Your task to perform on an android device: turn notification dots on Image 0: 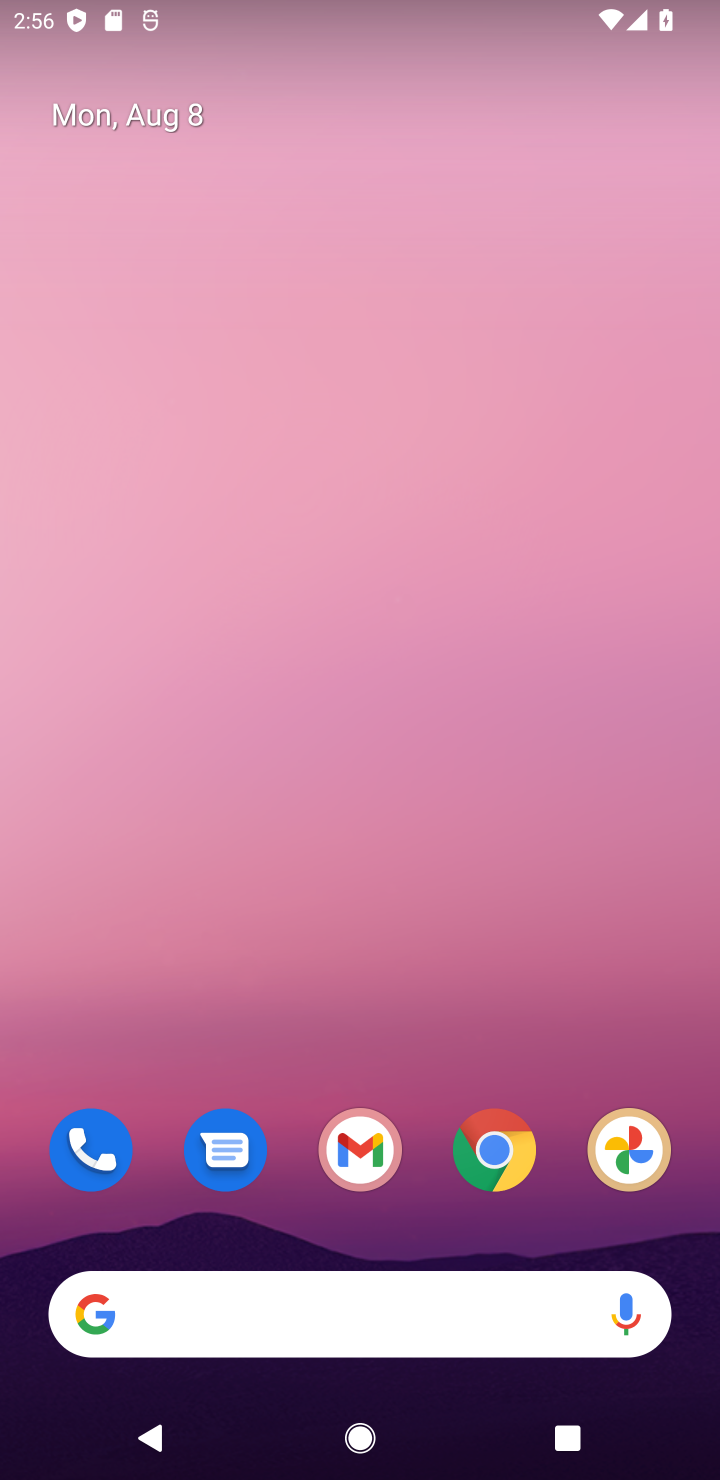
Step 0: click (517, 1150)
Your task to perform on an android device: turn notification dots on Image 1: 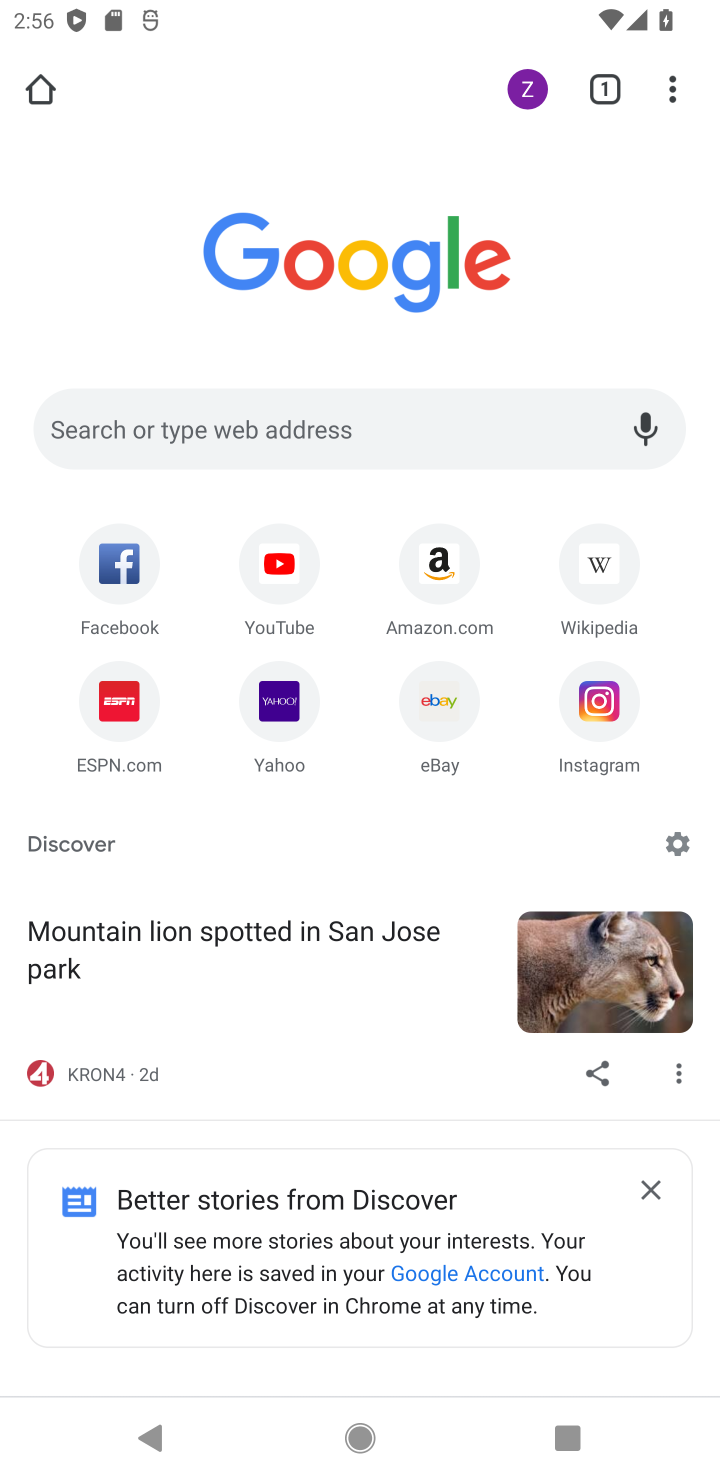
Step 1: press home button
Your task to perform on an android device: turn notification dots on Image 2: 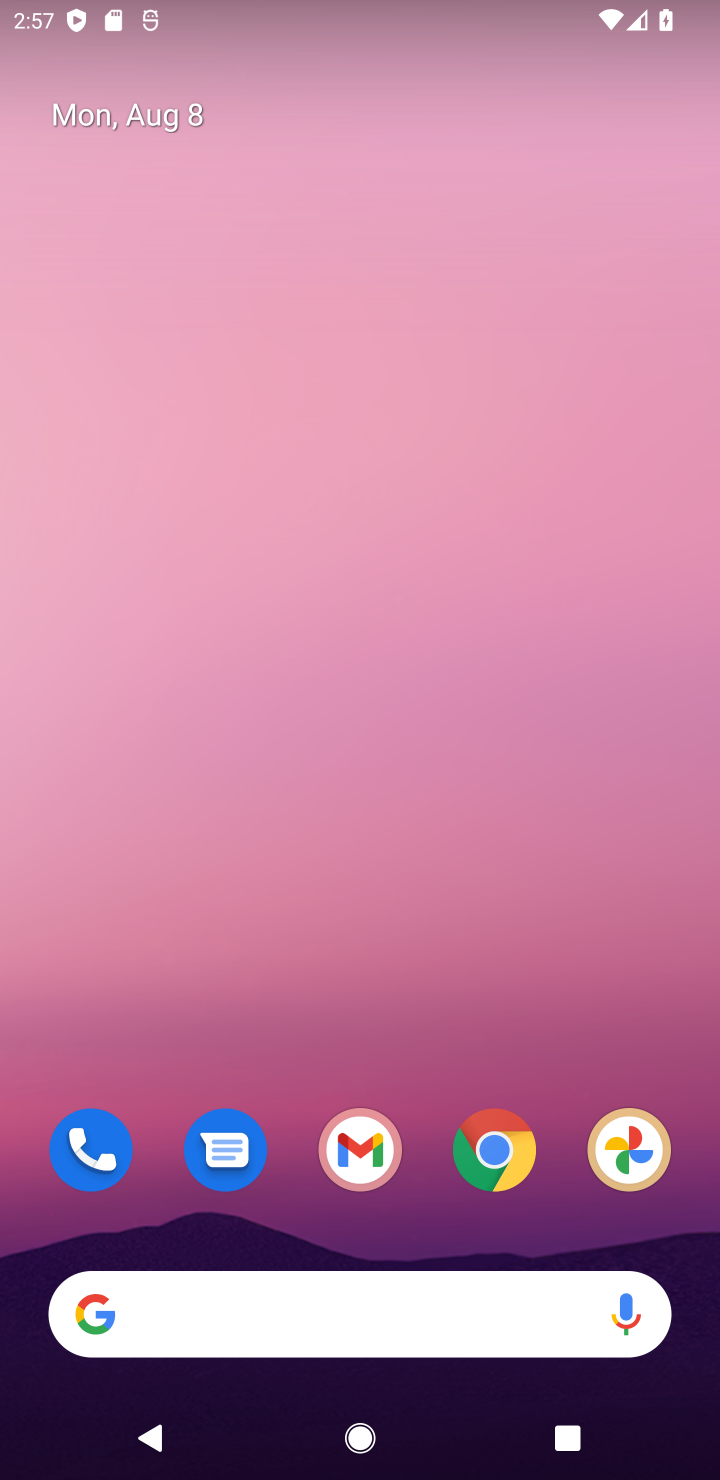
Step 2: drag from (146, 1180) to (166, 549)
Your task to perform on an android device: turn notification dots on Image 3: 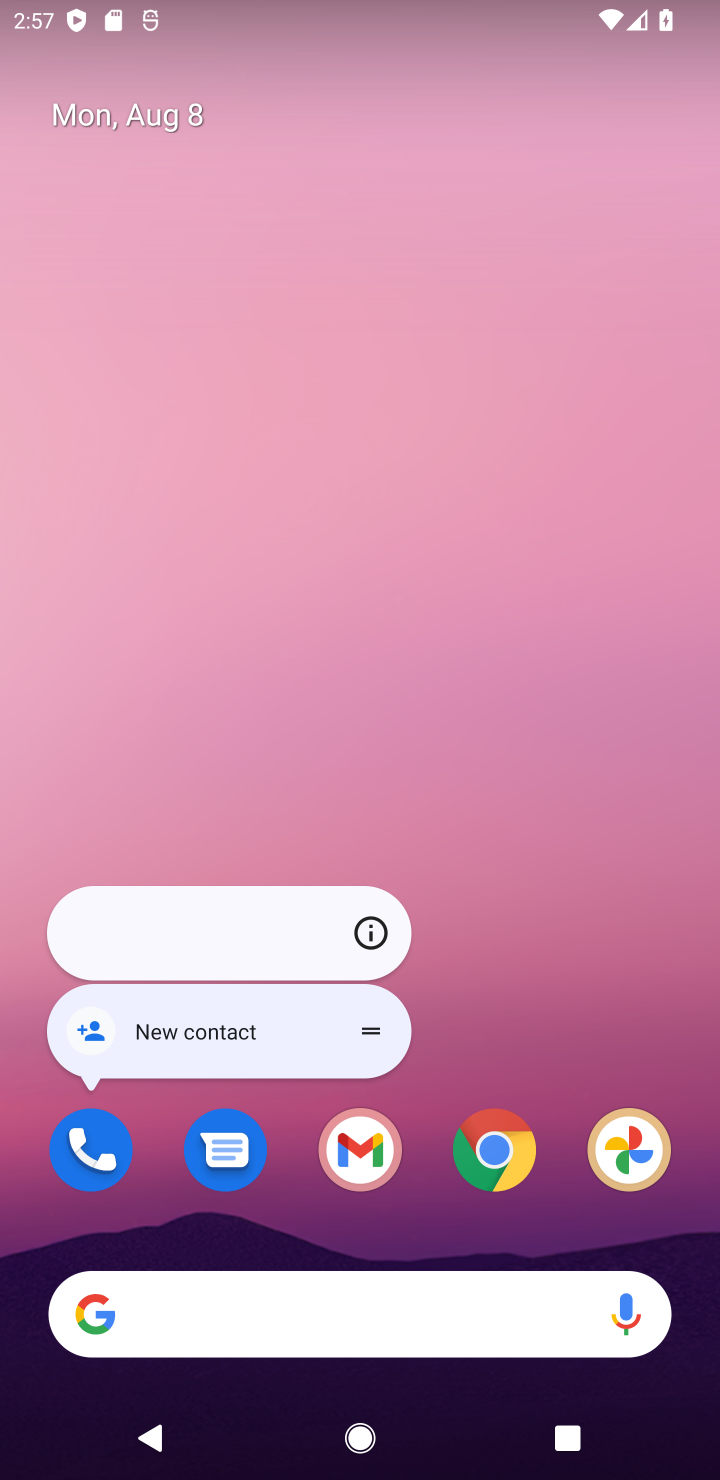
Step 3: drag from (58, 1408) to (412, 710)
Your task to perform on an android device: turn notification dots on Image 4: 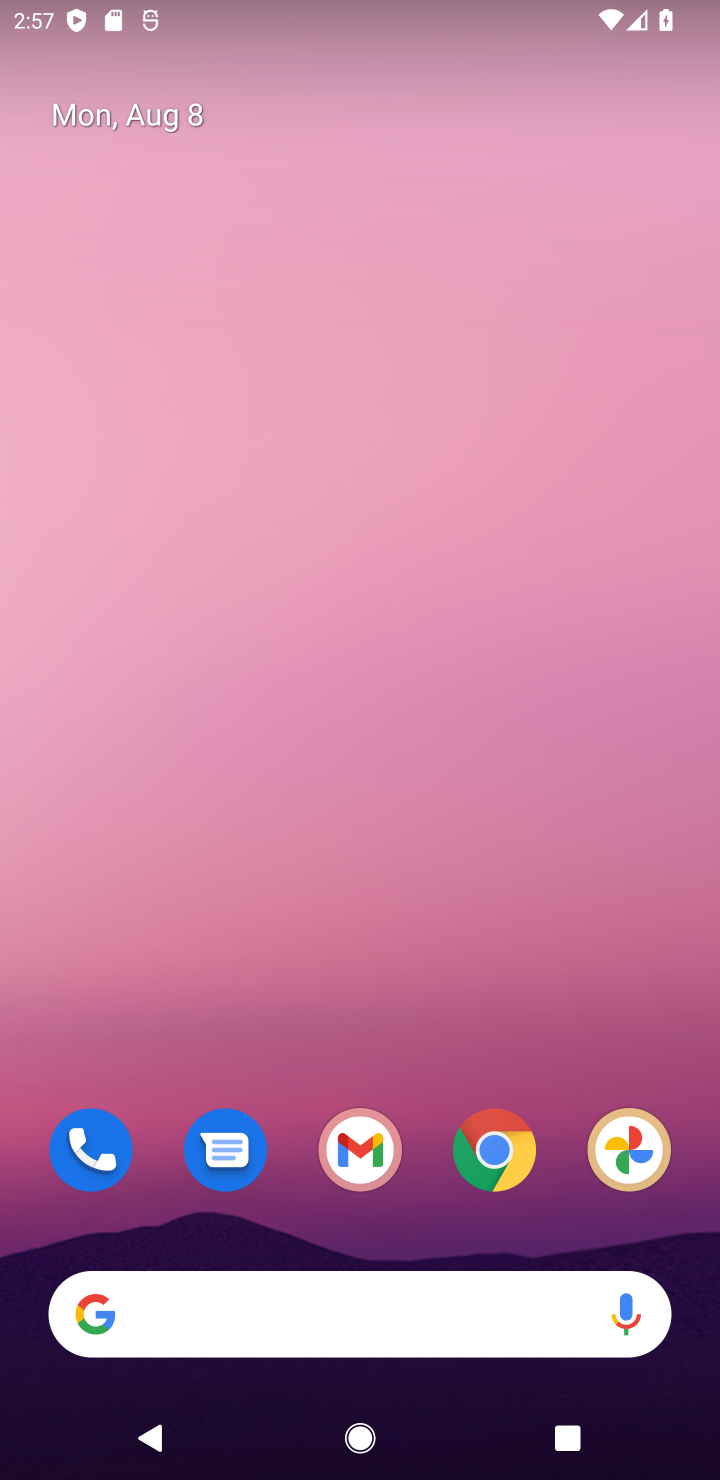
Step 4: drag from (38, 1444) to (367, 501)
Your task to perform on an android device: turn notification dots on Image 5: 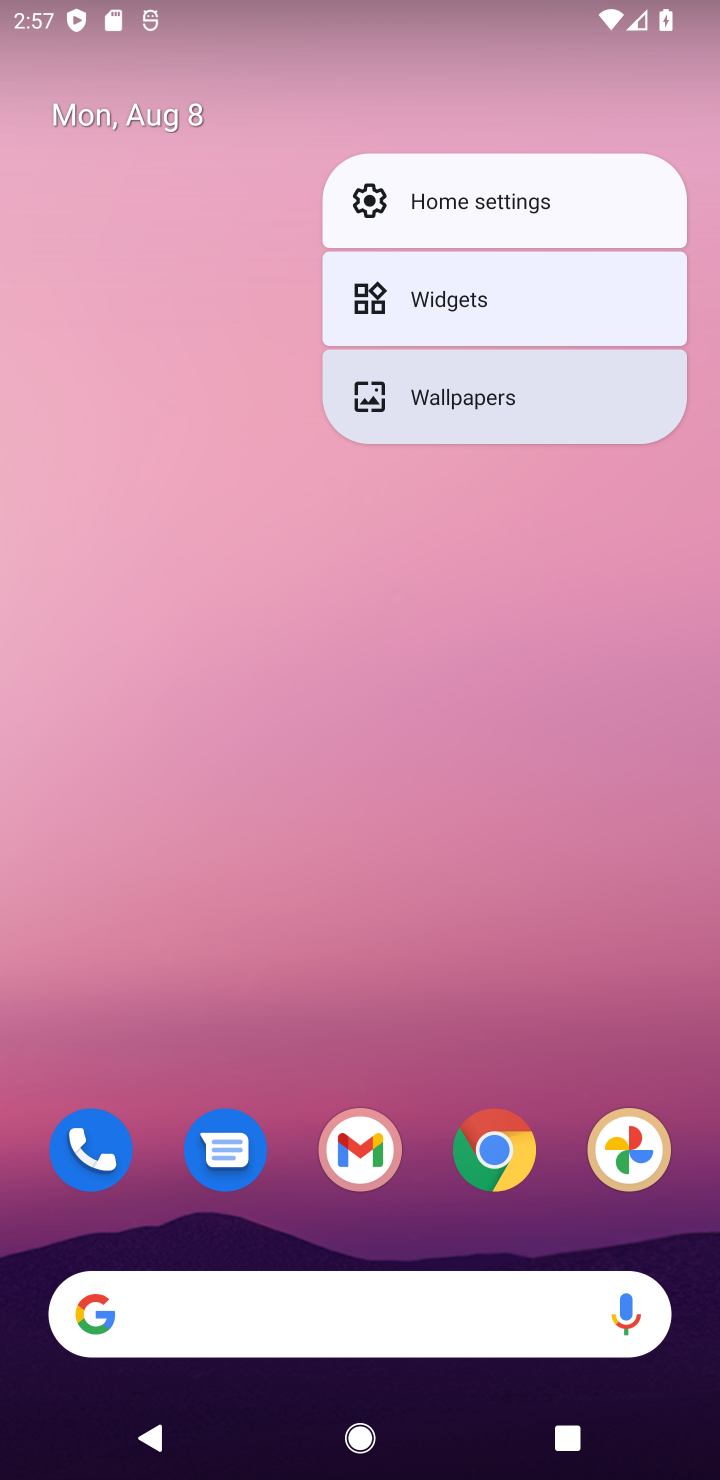
Step 5: drag from (110, 1419) to (518, 606)
Your task to perform on an android device: turn notification dots on Image 6: 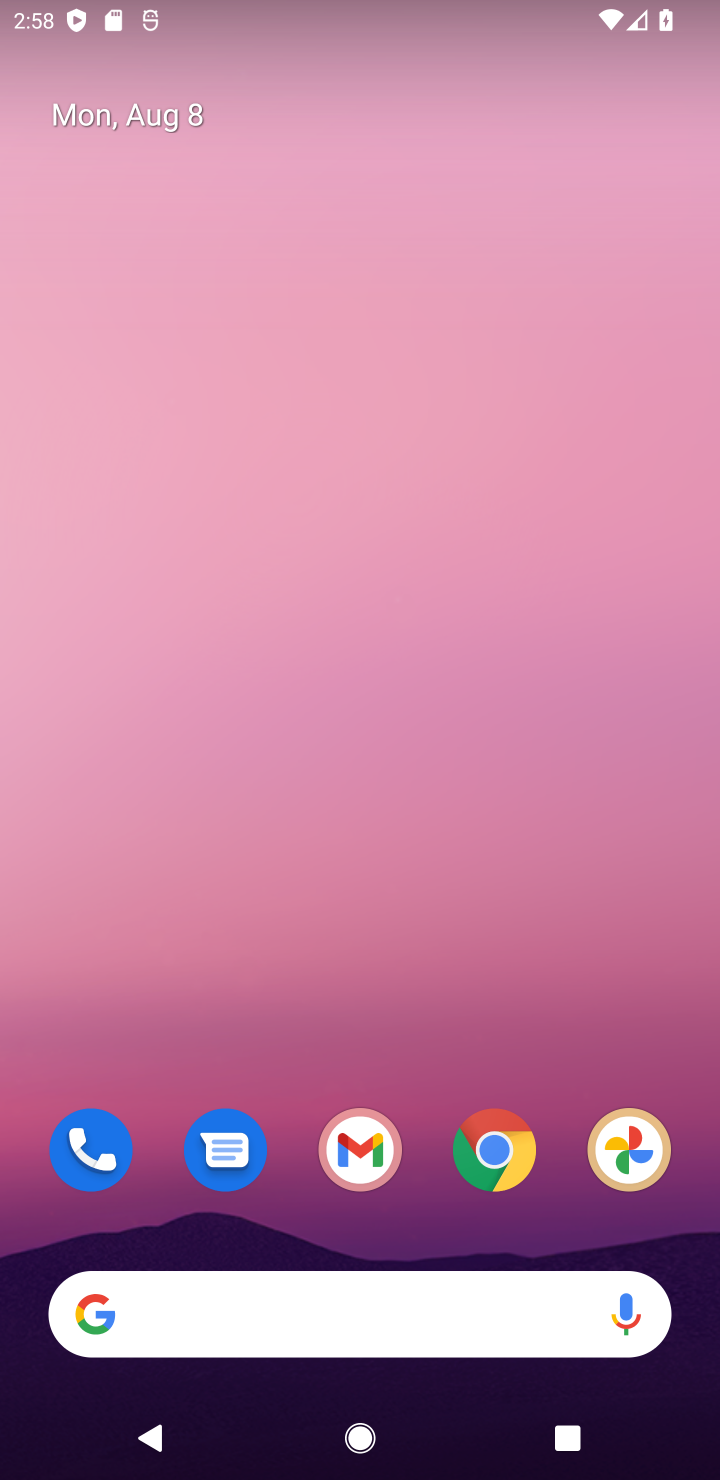
Step 6: drag from (19, 1420) to (603, 9)
Your task to perform on an android device: turn notification dots on Image 7: 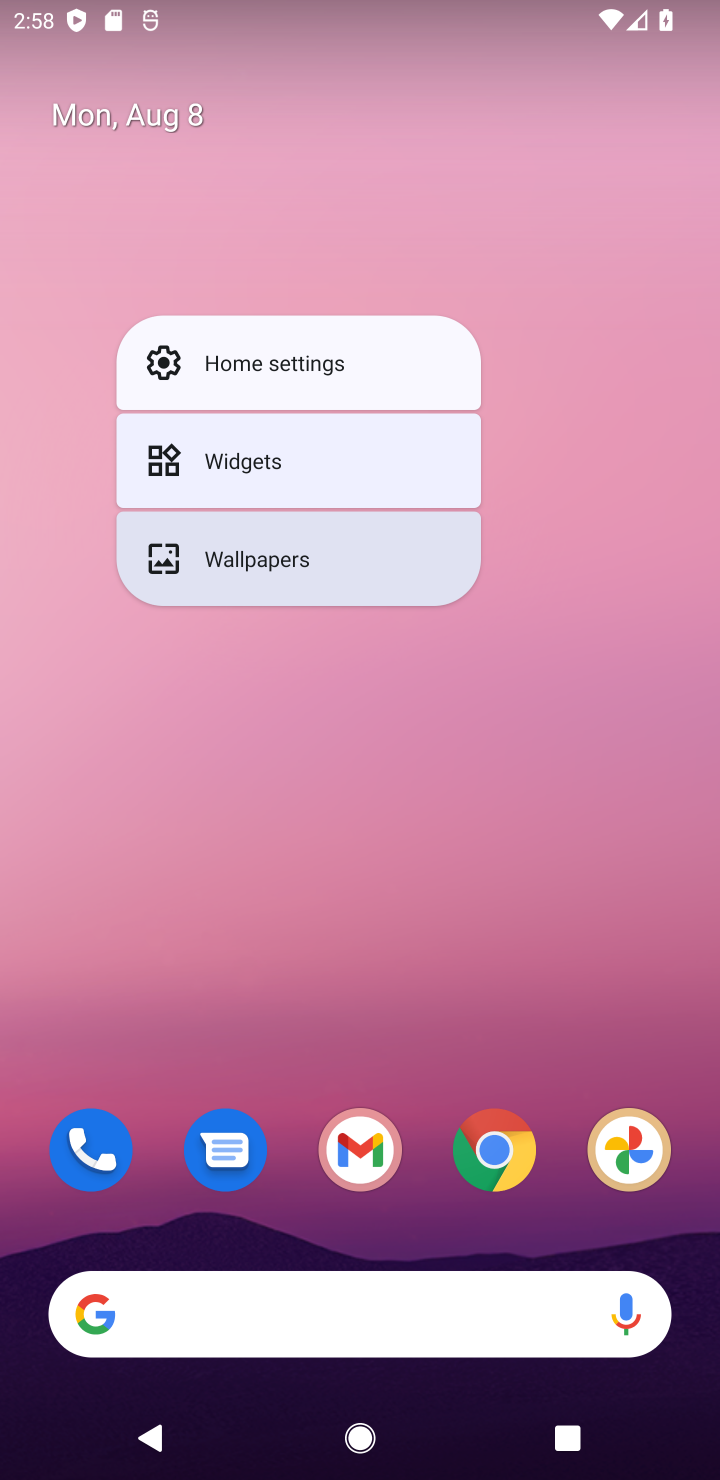
Step 7: click (80, 1421)
Your task to perform on an android device: turn notification dots on Image 8: 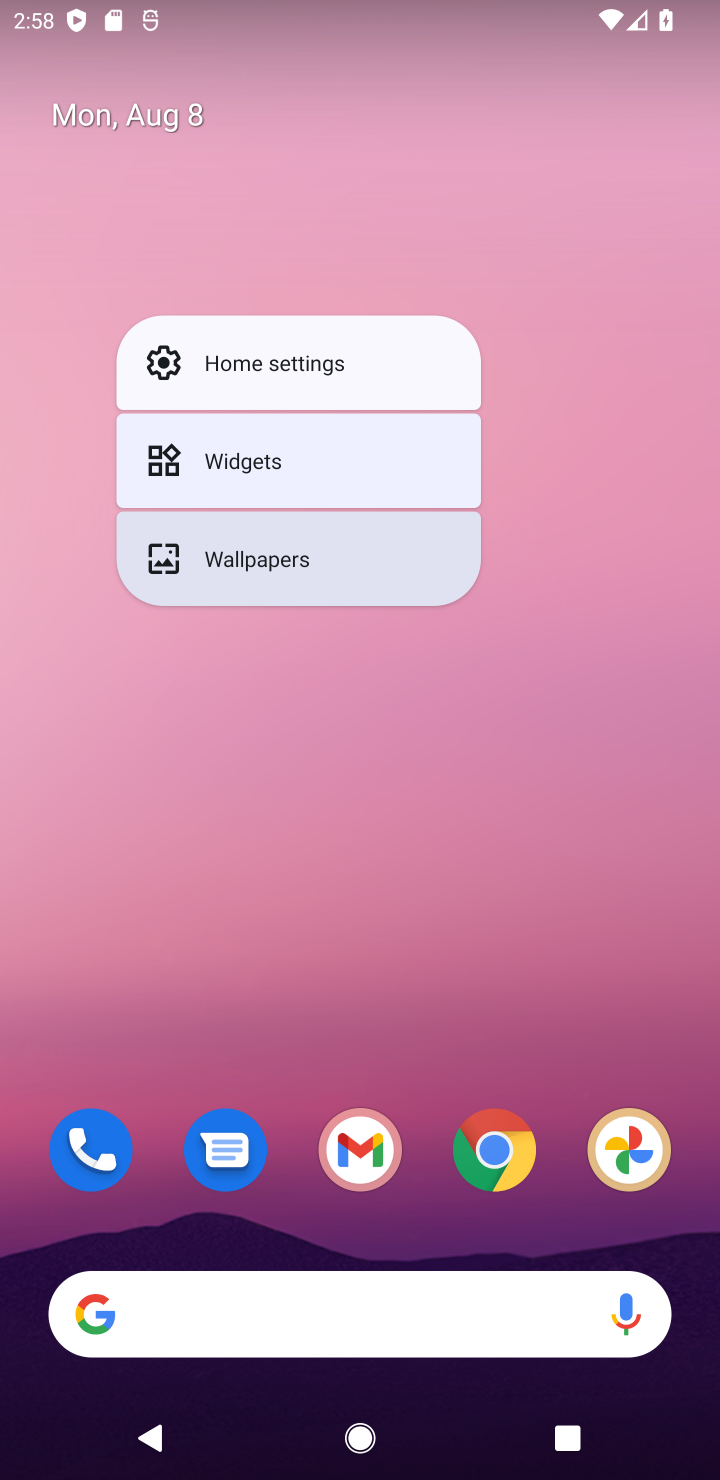
Step 8: drag from (80, 1421) to (293, 845)
Your task to perform on an android device: turn notification dots on Image 9: 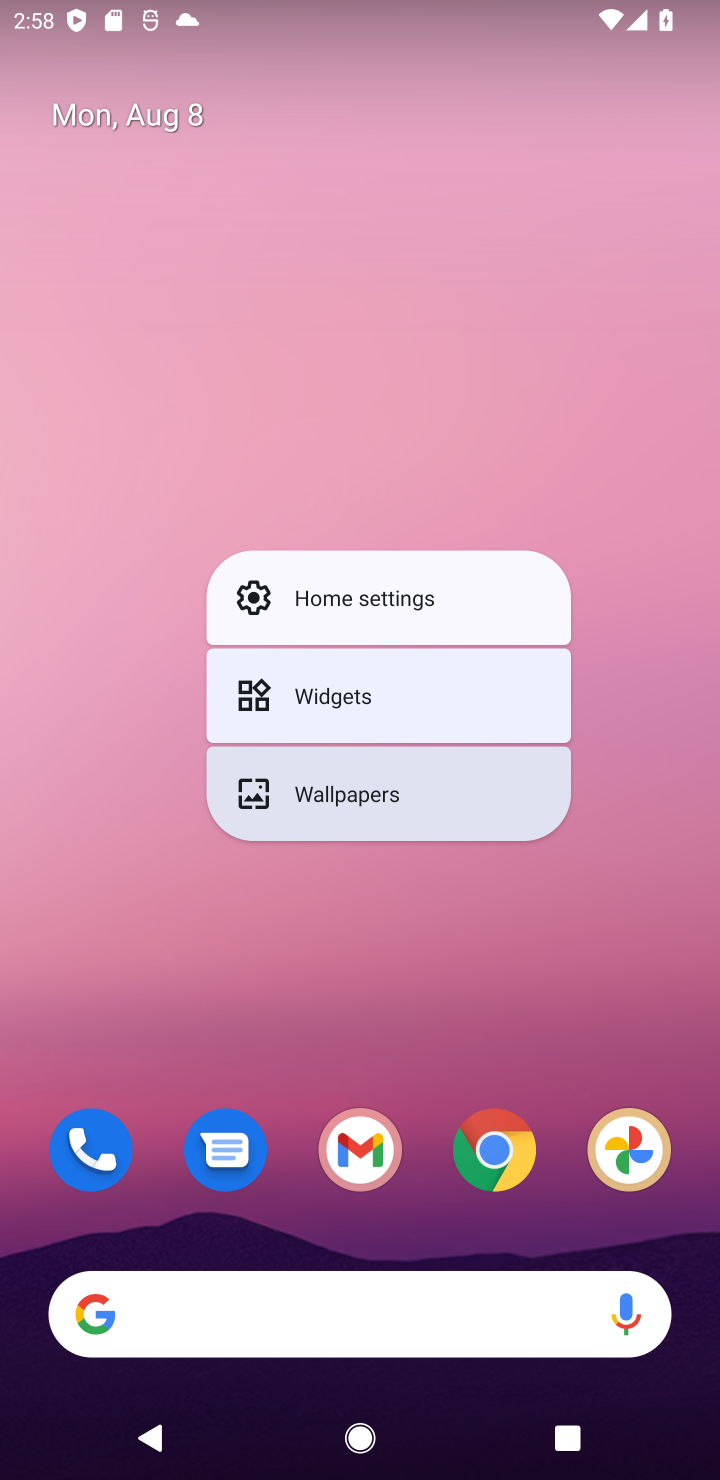
Step 9: drag from (0, 1450) to (314, 885)
Your task to perform on an android device: turn notification dots on Image 10: 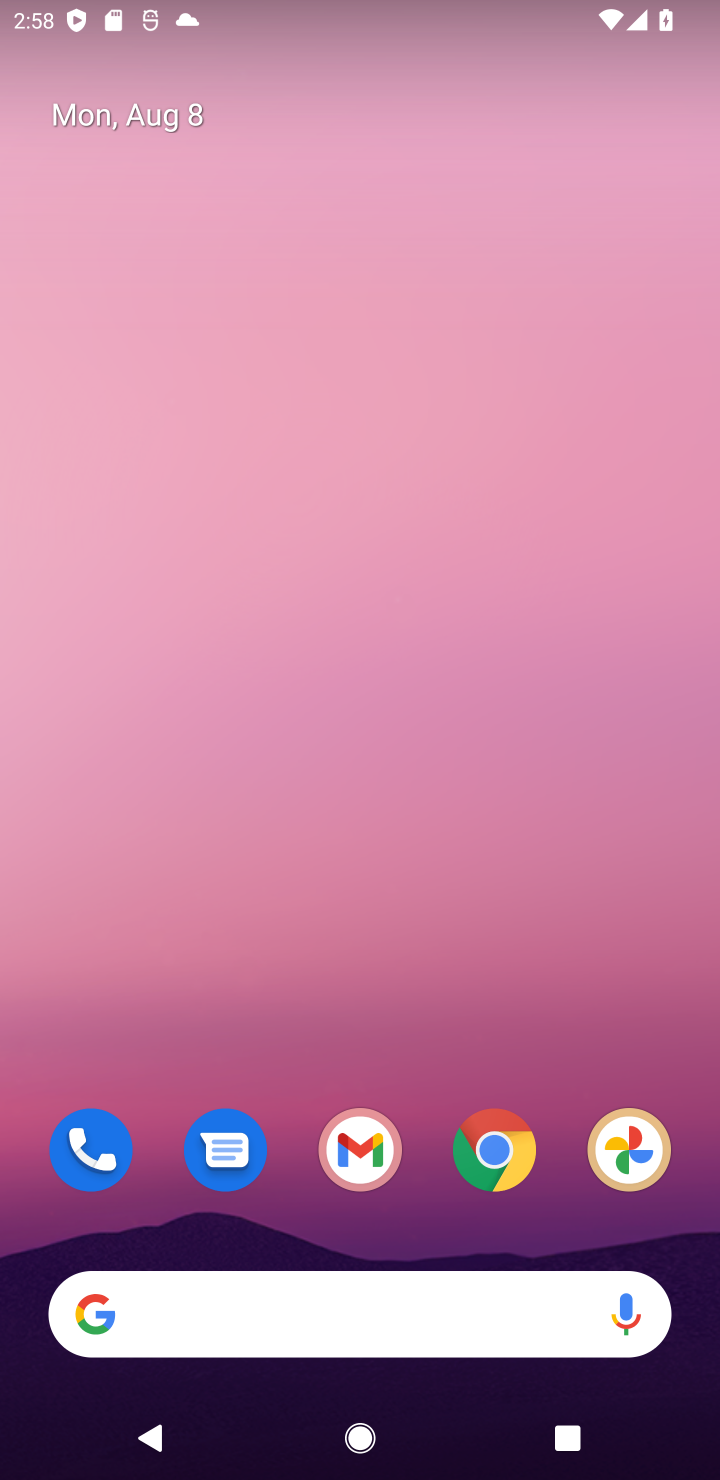
Step 10: drag from (100, 1397) to (447, 646)
Your task to perform on an android device: turn notification dots on Image 11: 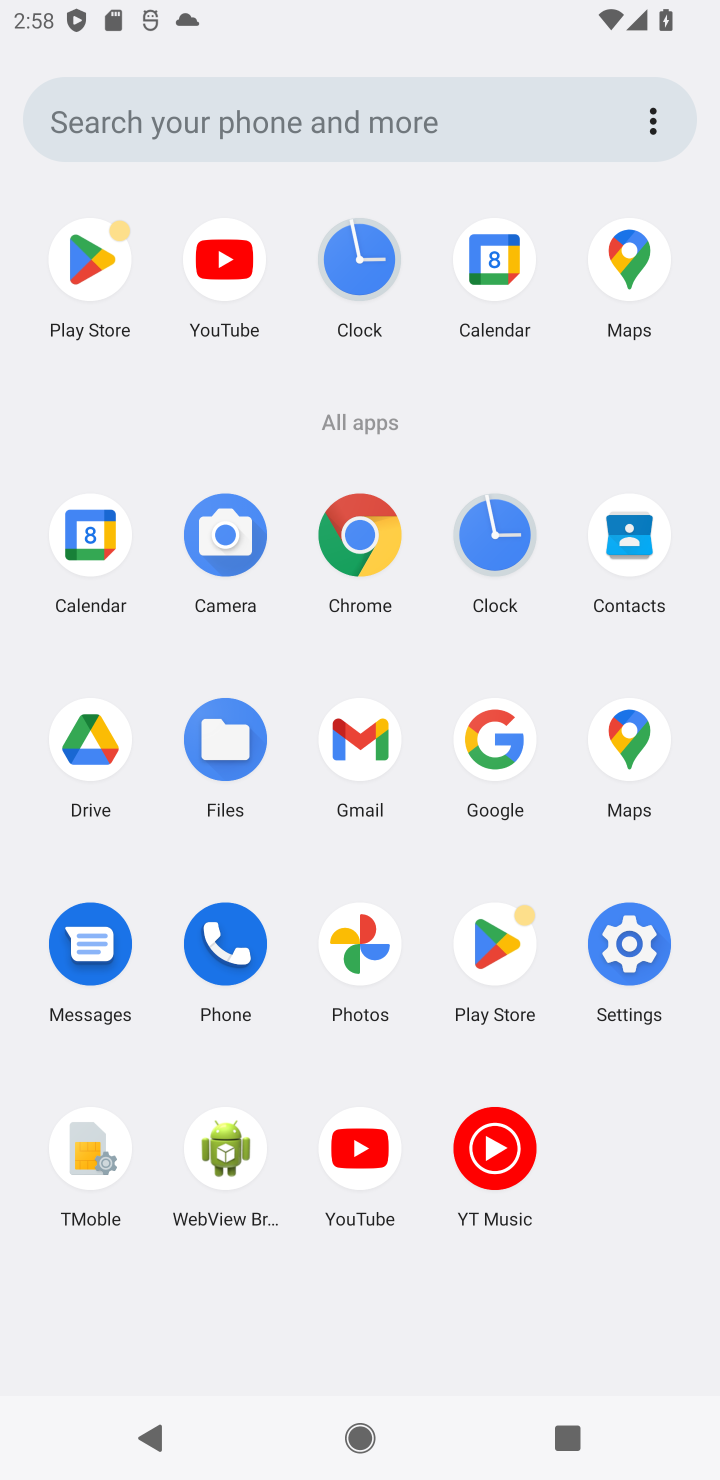
Step 11: click (649, 969)
Your task to perform on an android device: turn notification dots on Image 12: 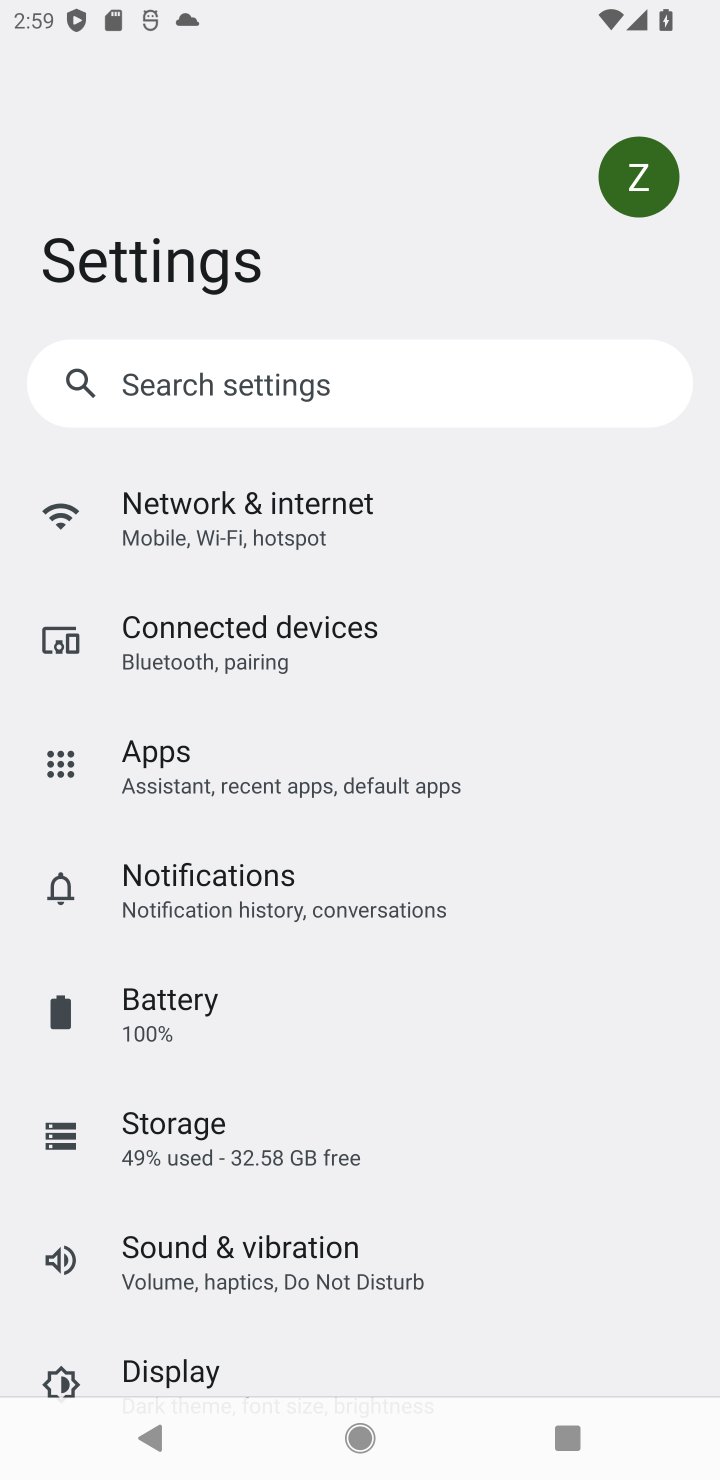
Step 12: drag from (515, 1309) to (657, 819)
Your task to perform on an android device: turn notification dots on Image 13: 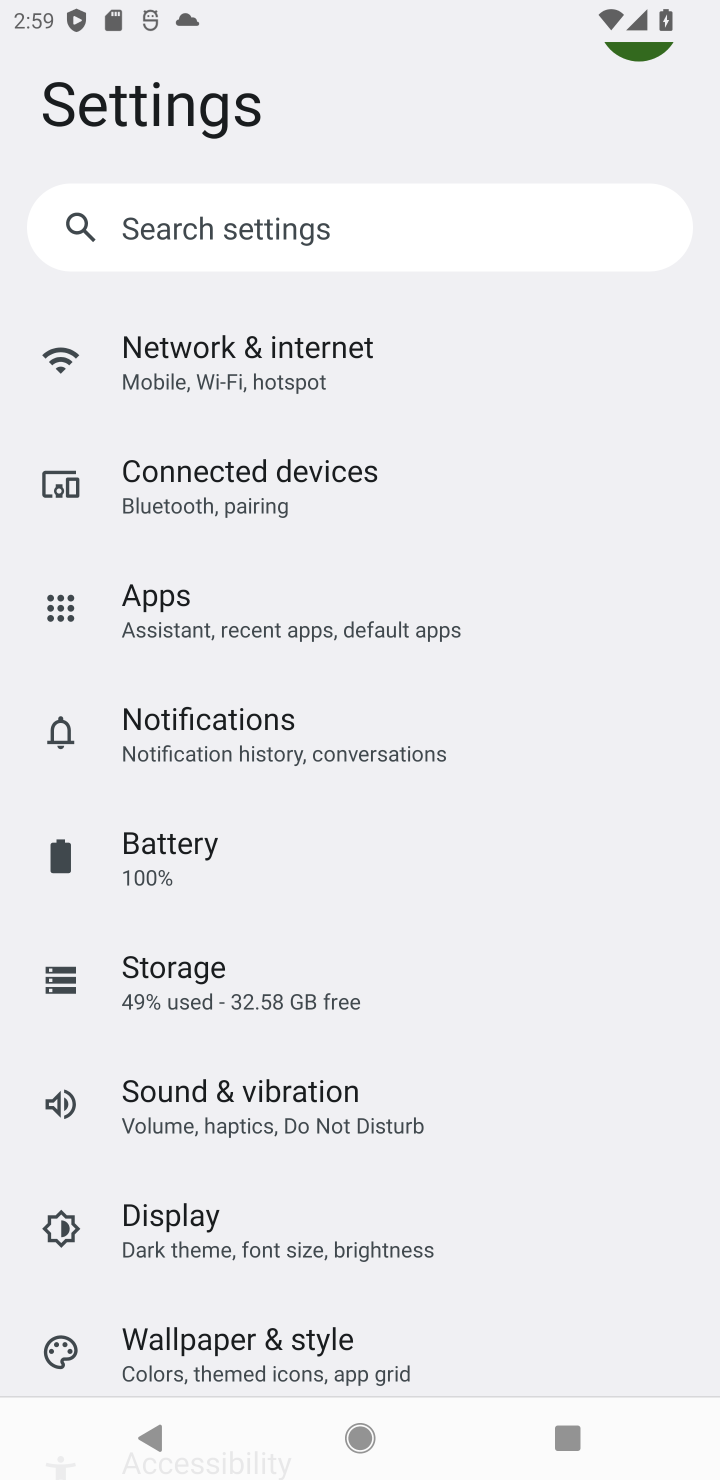
Step 13: drag from (484, 1264) to (570, 757)
Your task to perform on an android device: turn notification dots on Image 14: 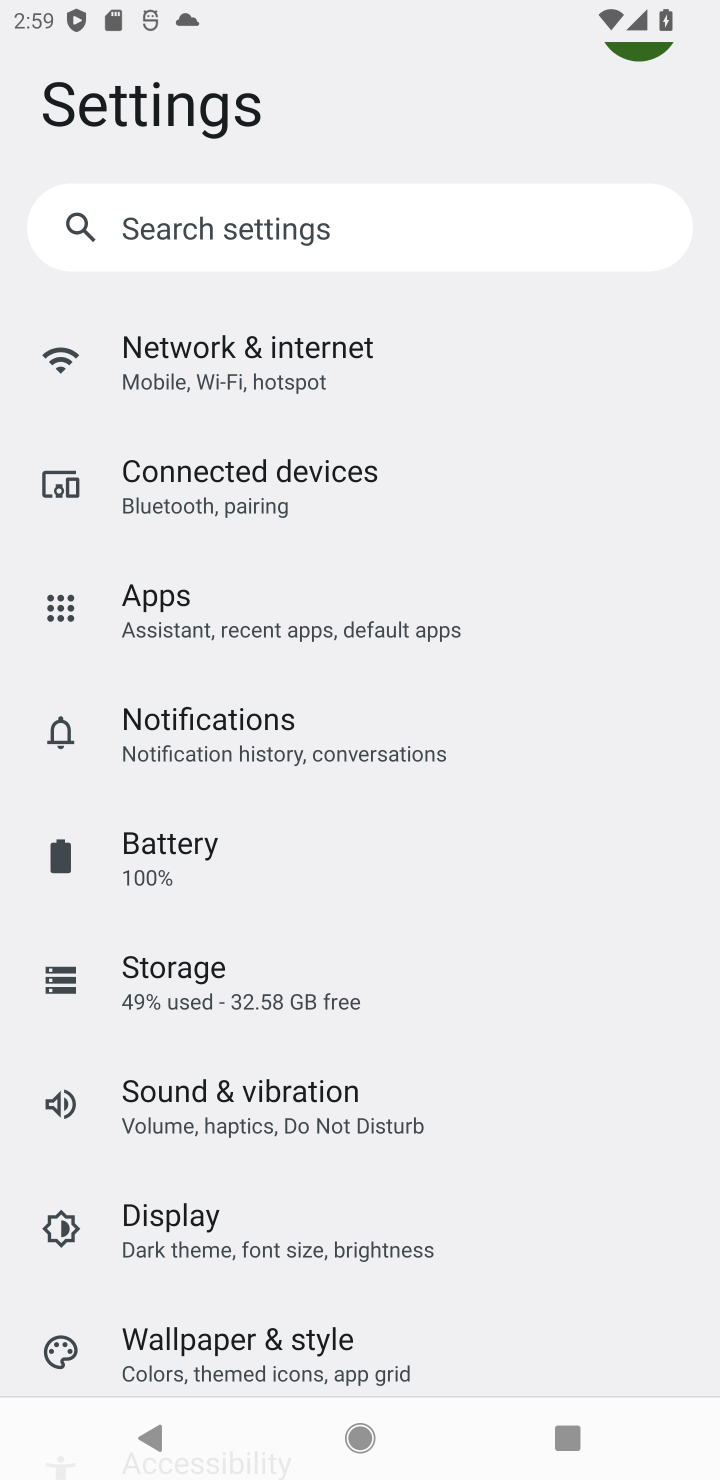
Step 14: drag from (599, 1322) to (578, 538)
Your task to perform on an android device: turn notification dots on Image 15: 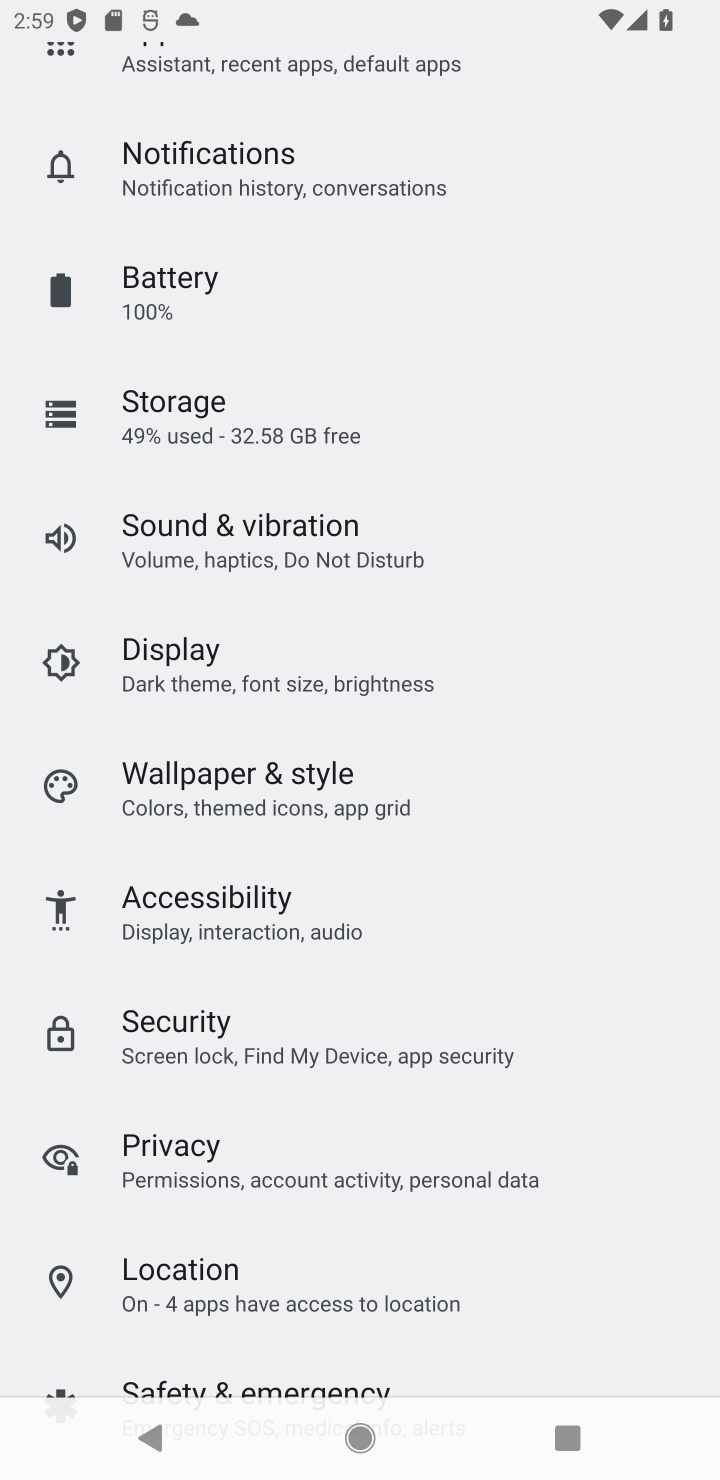
Step 15: click (301, 160)
Your task to perform on an android device: turn notification dots on Image 16: 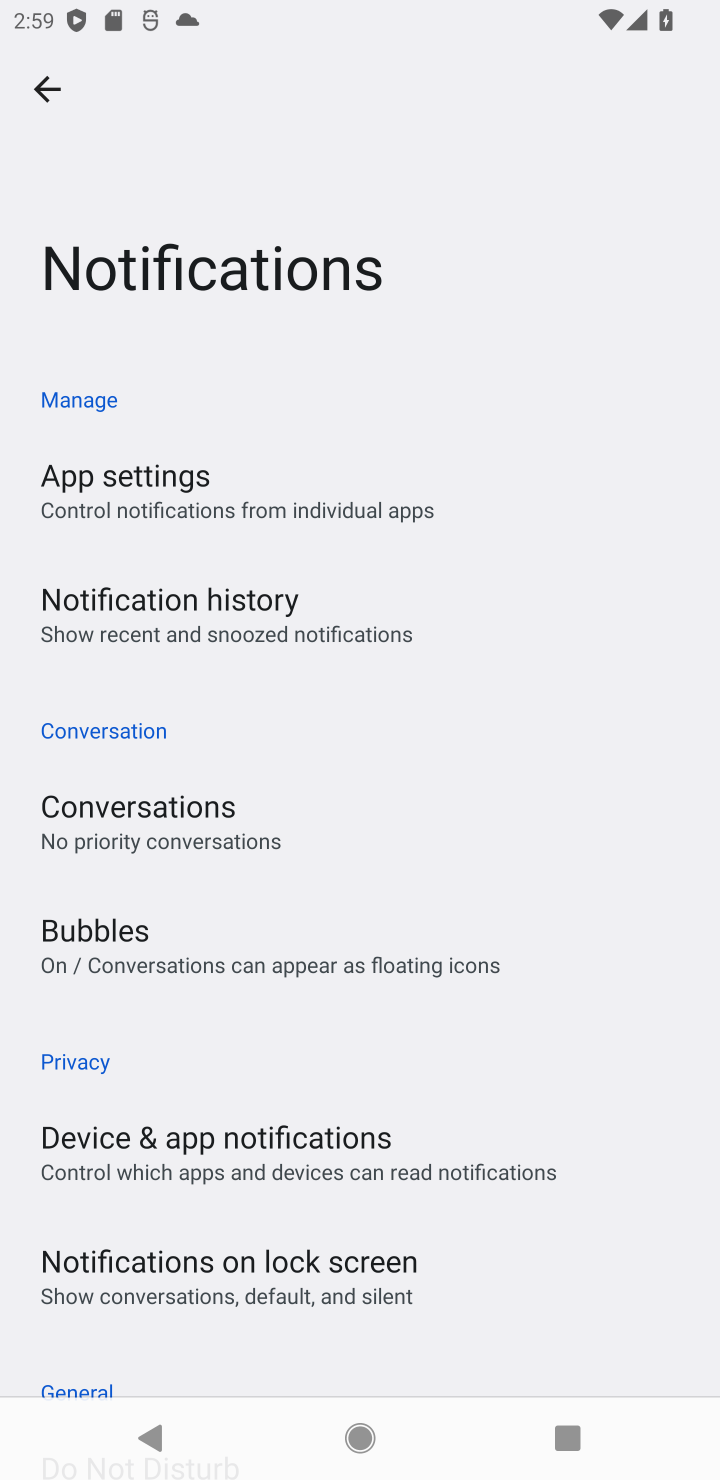
Step 16: task complete